Your task to perform on an android device: check data usage Image 0: 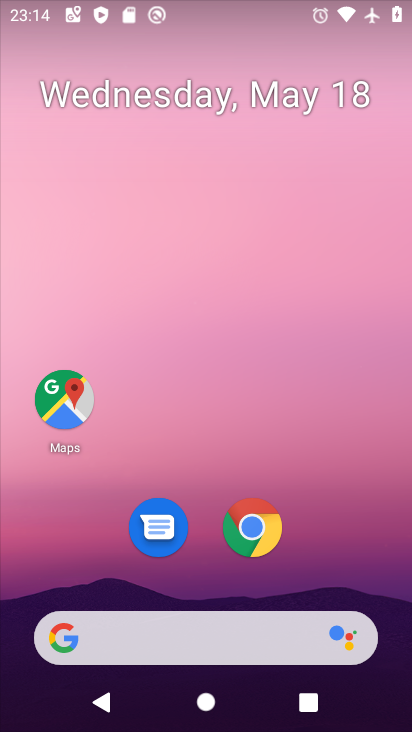
Step 0: drag from (327, 508) to (241, 9)
Your task to perform on an android device: check data usage Image 1: 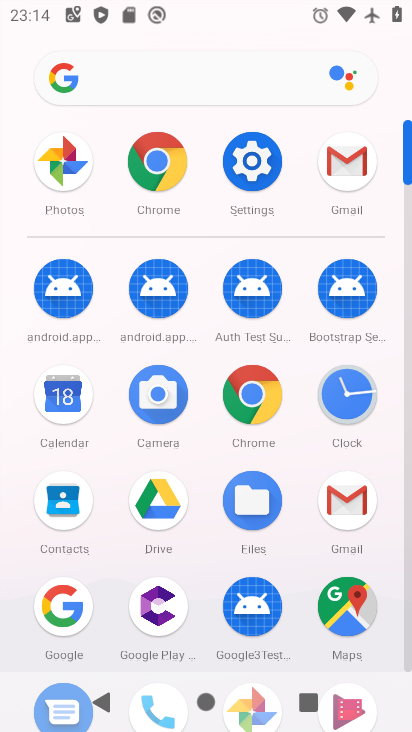
Step 1: click (233, 171)
Your task to perform on an android device: check data usage Image 2: 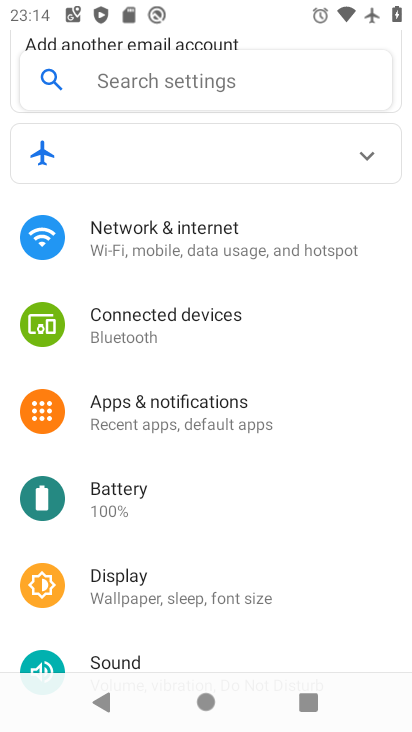
Step 2: click (202, 241)
Your task to perform on an android device: check data usage Image 3: 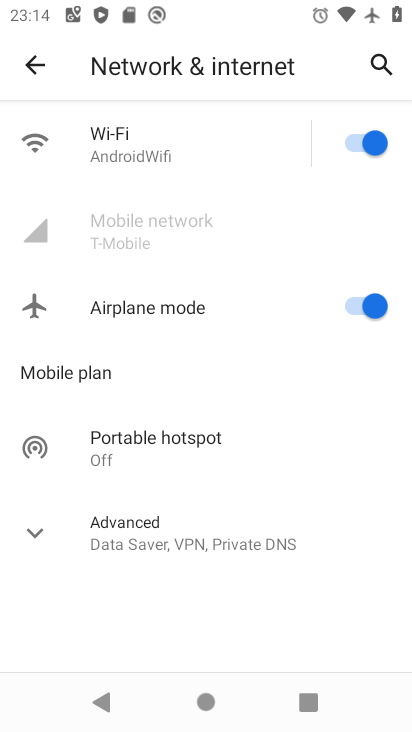
Step 3: click (345, 315)
Your task to perform on an android device: check data usage Image 4: 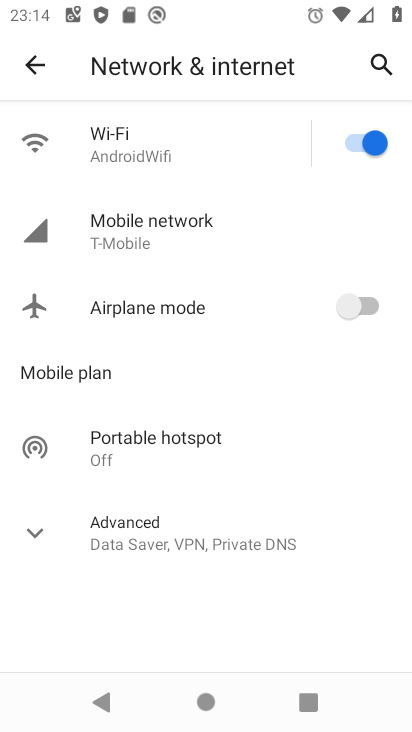
Step 4: click (272, 215)
Your task to perform on an android device: check data usage Image 5: 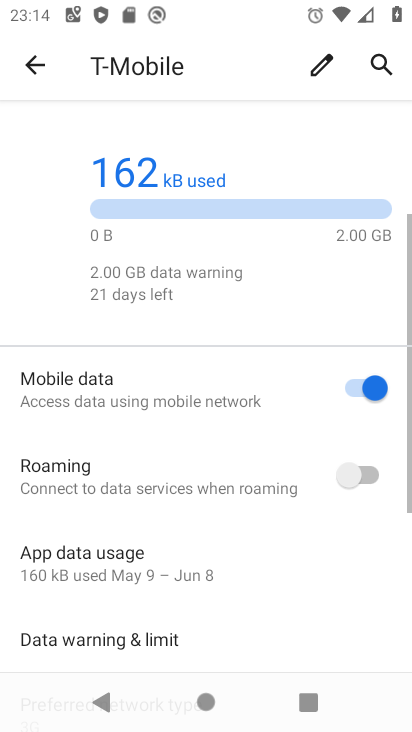
Step 5: task complete